Your task to perform on an android device: allow cookies in the chrome app Image 0: 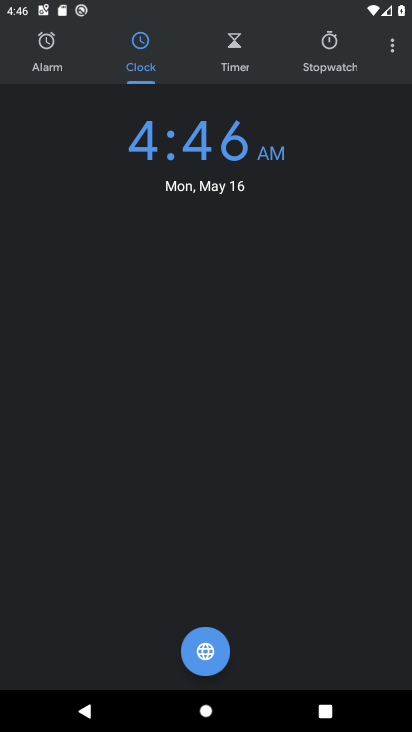
Step 0: press home button
Your task to perform on an android device: allow cookies in the chrome app Image 1: 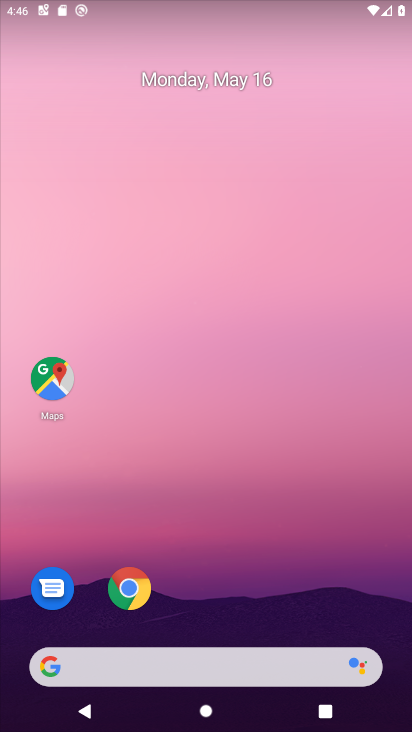
Step 1: click (137, 590)
Your task to perform on an android device: allow cookies in the chrome app Image 2: 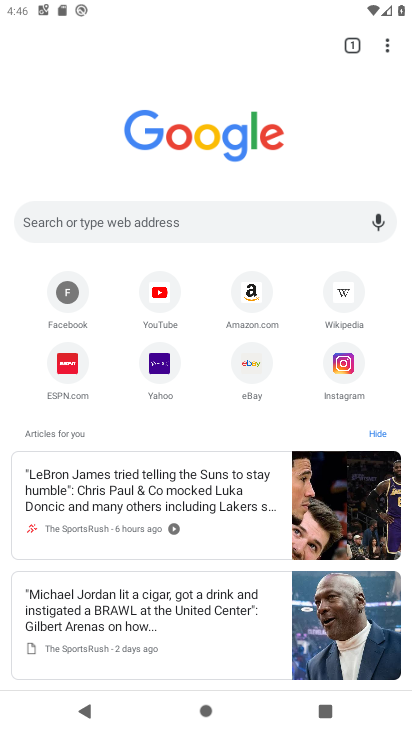
Step 2: click (390, 43)
Your task to perform on an android device: allow cookies in the chrome app Image 3: 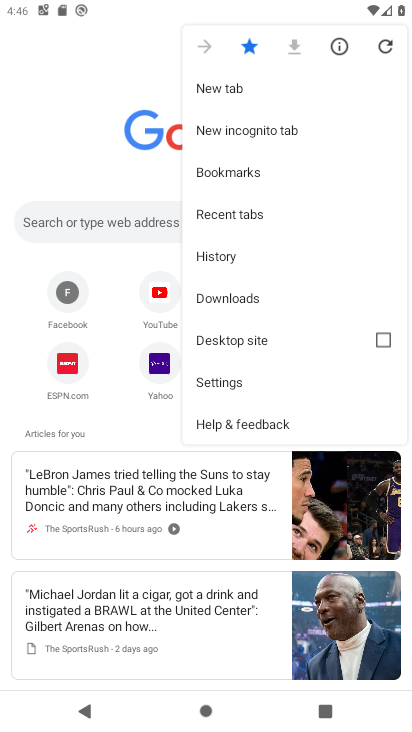
Step 3: click (234, 370)
Your task to perform on an android device: allow cookies in the chrome app Image 4: 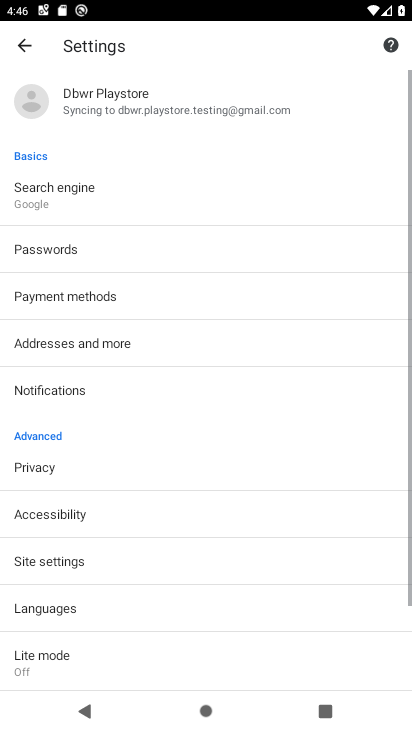
Step 4: click (81, 559)
Your task to perform on an android device: allow cookies in the chrome app Image 5: 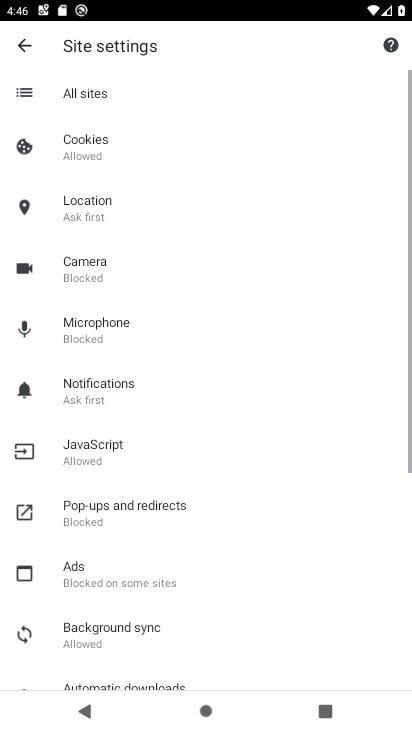
Step 5: click (126, 155)
Your task to perform on an android device: allow cookies in the chrome app Image 6: 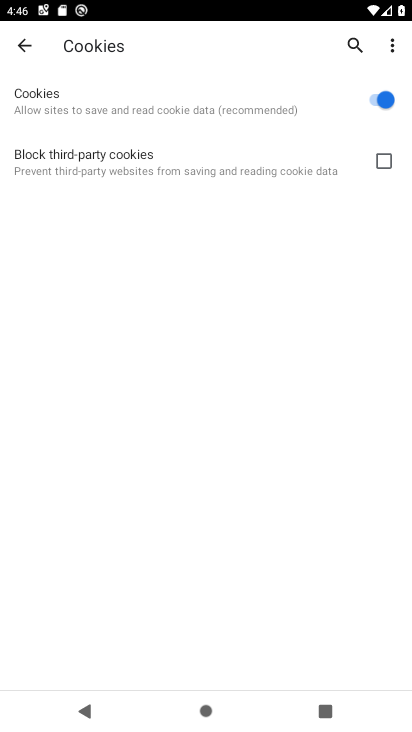
Step 6: click (380, 159)
Your task to perform on an android device: allow cookies in the chrome app Image 7: 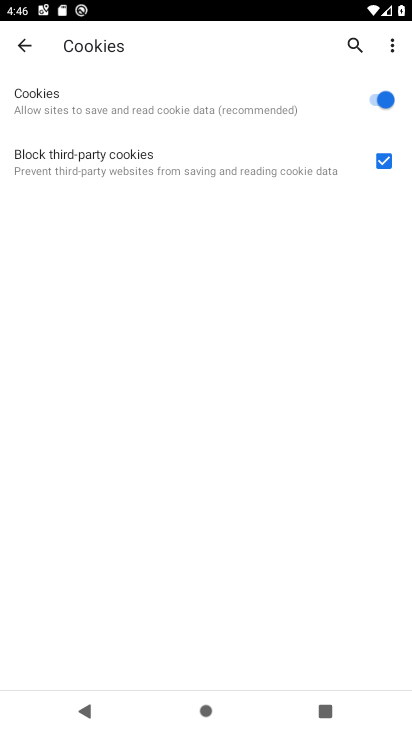
Step 7: task complete